Your task to perform on an android device: Go to calendar. Show me events next week Image 0: 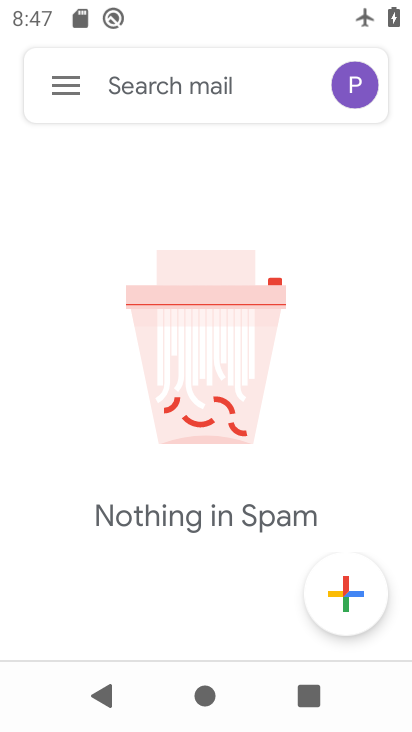
Step 0: press home button
Your task to perform on an android device: Go to calendar. Show me events next week Image 1: 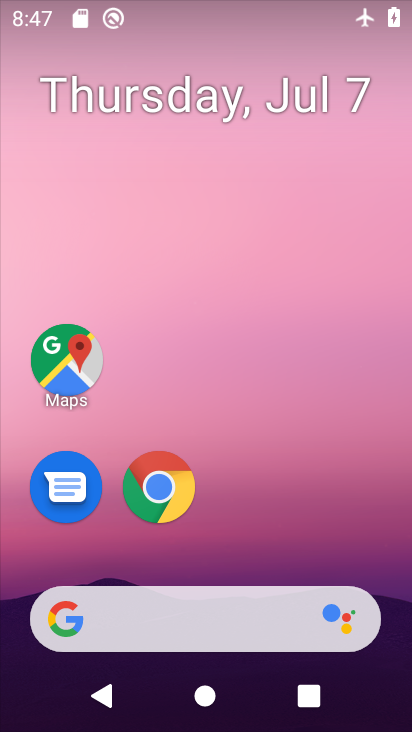
Step 1: drag from (355, 525) to (353, 72)
Your task to perform on an android device: Go to calendar. Show me events next week Image 2: 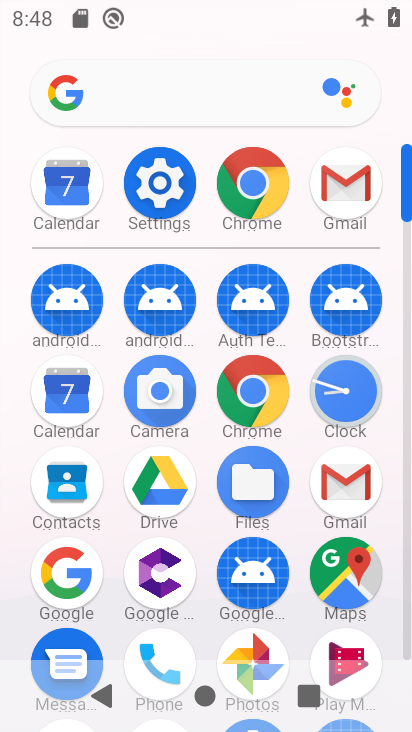
Step 2: click (70, 404)
Your task to perform on an android device: Go to calendar. Show me events next week Image 3: 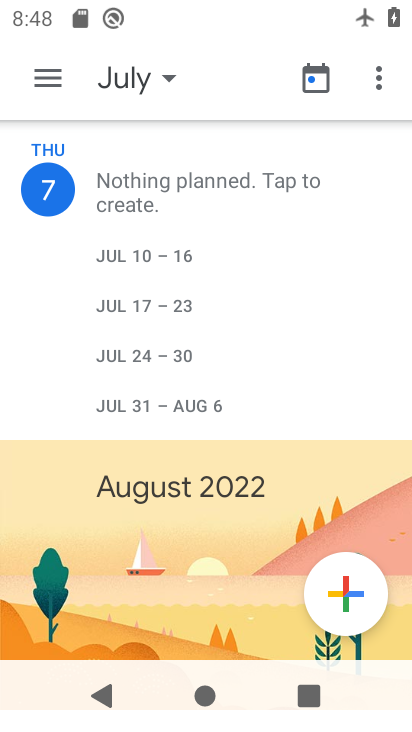
Step 3: click (174, 70)
Your task to perform on an android device: Go to calendar. Show me events next week Image 4: 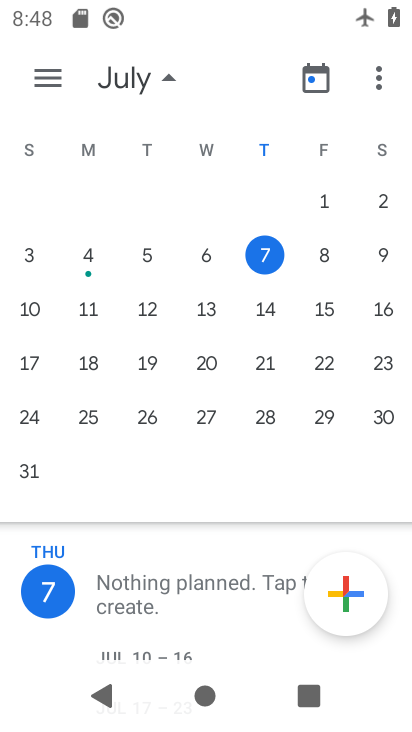
Step 4: click (85, 314)
Your task to perform on an android device: Go to calendar. Show me events next week Image 5: 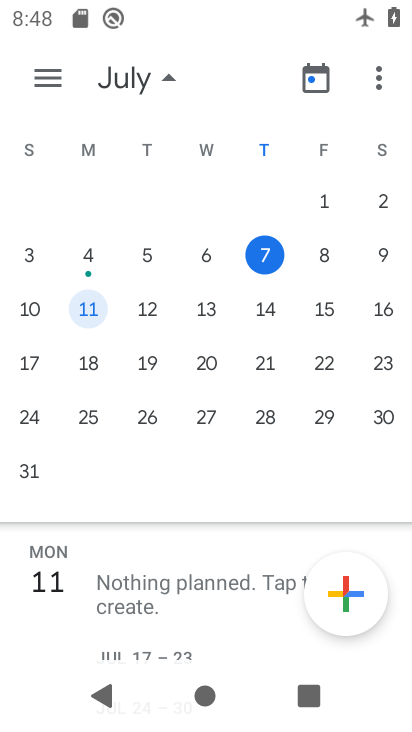
Step 5: task complete